Your task to perform on an android device: turn pop-ups on in chrome Image 0: 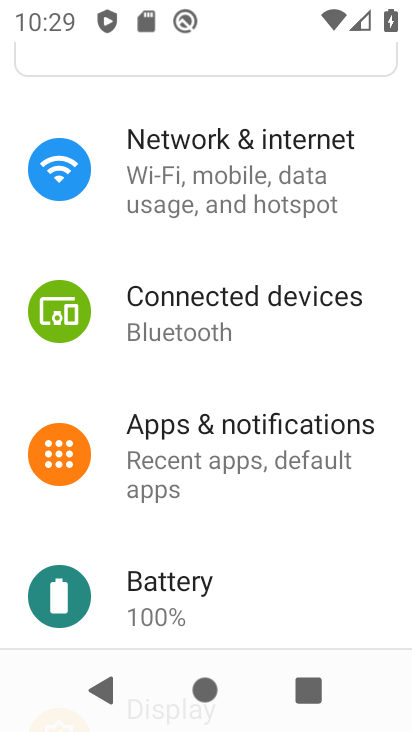
Step 0: press home button
Your task to perform on an android device: turn pop-ups on in chrome Image 1: 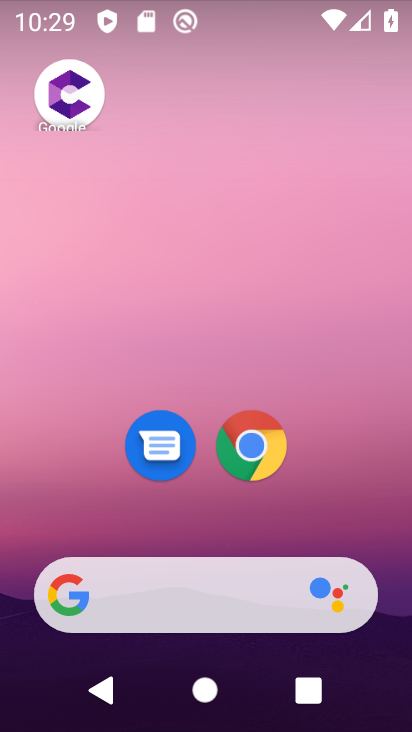
Step 1: click (317, 520)
Your task to perform on an android device: turn pop-ups on in chrome Image 2: 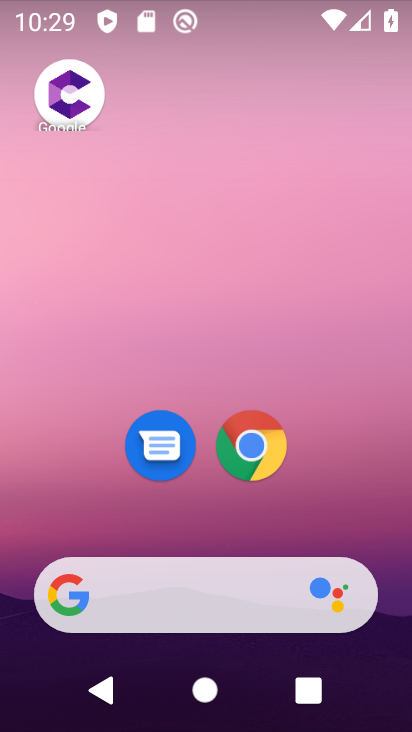
Step 2: click (277, 451)
Your task to perform on an android device: turn pop-ups on in chrome Image 3: 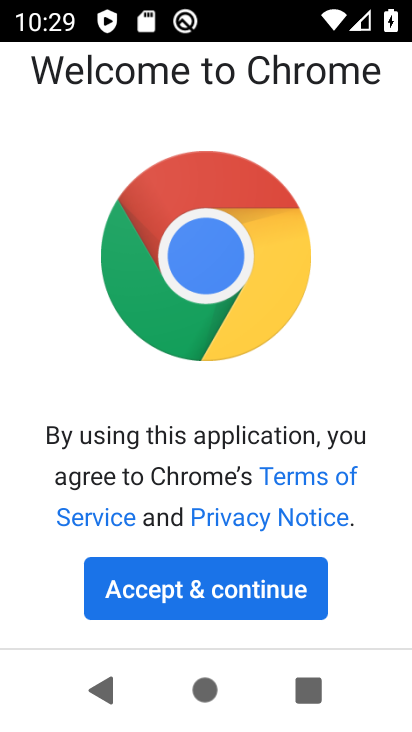
Step 3: click (237, 587)
Your task to perform on an android device: turn pop-ups on in chrome Image 4: 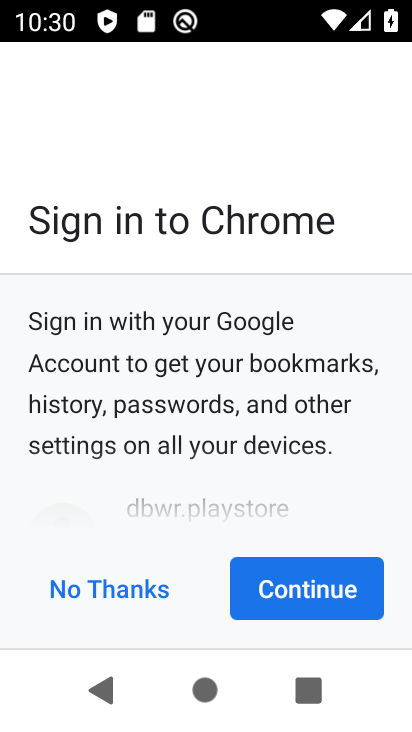
Step 4: click (302, 578)
Your task to perform on an android device: turn pop-ups on in chrome Image 5: 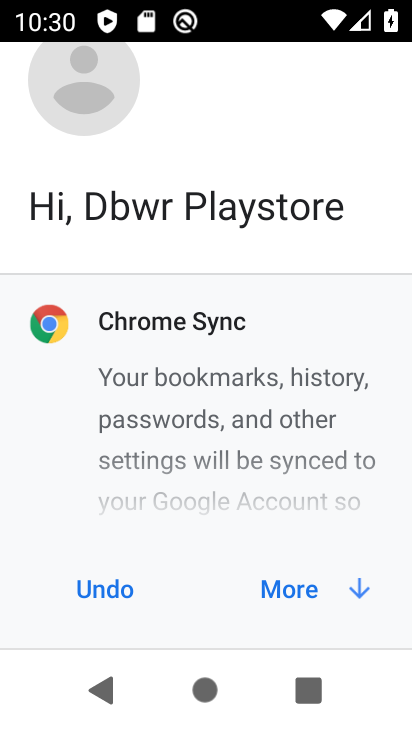
Step 5: click (307, 588)
Your task to perform on an android device: turn pop-ups on in chrome Image 6: 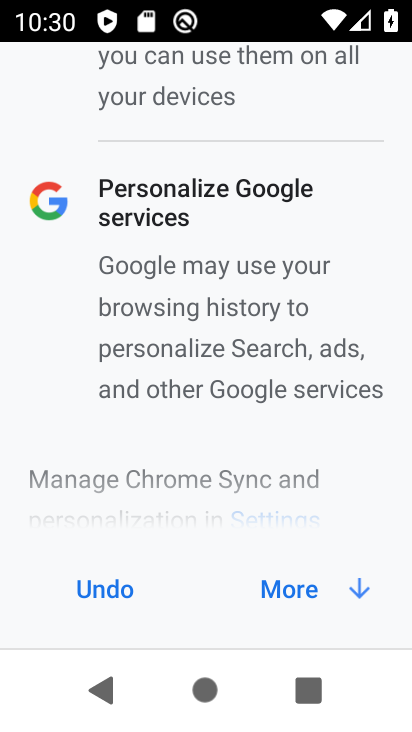
Step 6: click (330, 584)
Your task to perform on an android device: turn pop-ups on in chrome Image 7: 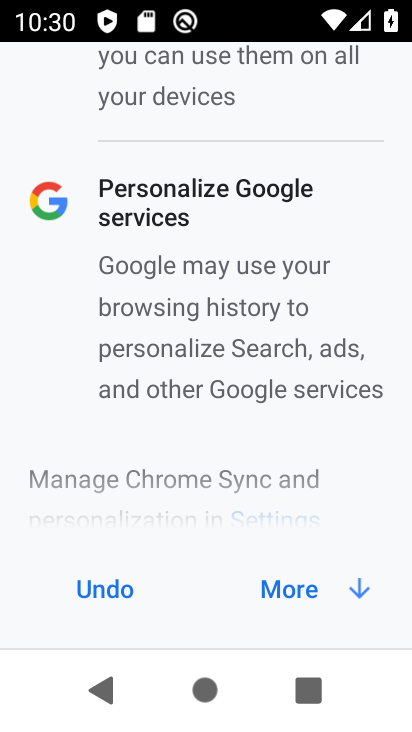
Step 7: click (329, 583)
Your task to perform on an android device: turn pop-ups on in chrome Image 8: 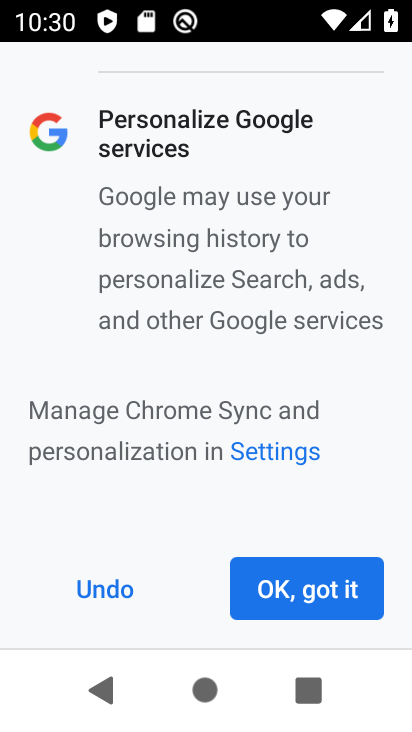
Step 8: click (335, 582)
Your task to perform on an android device: turn pop-ups on in chrome Image 9: 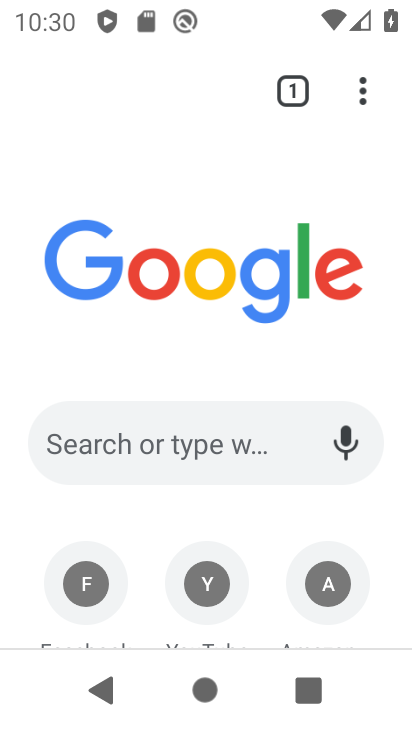
Step 9: click (371, 83)
Your task to perform on an android device: turn pop-ups on in chrome Image 10: 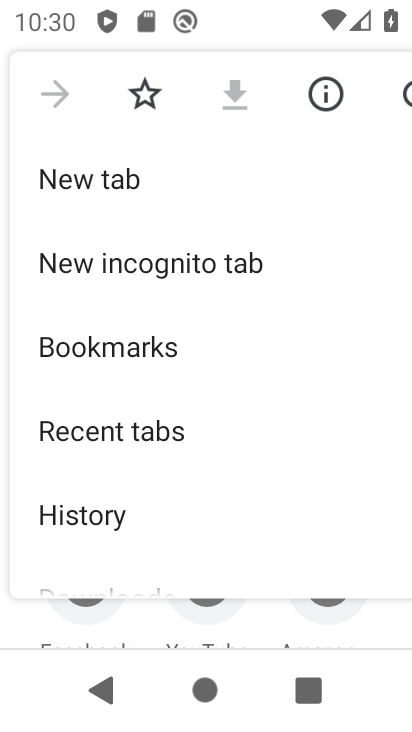
Step 10: drag from (256, 498) to (235, 45)
Your task to perform on an android device: turn pop-ups on in chrome Image 11: 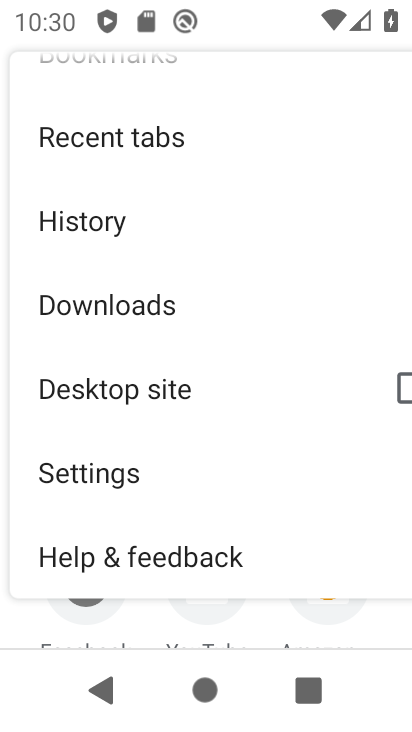
Step 11: click (161, 472)
Your task to perform on an android device: turn pop-ups on in chrome Image 12: 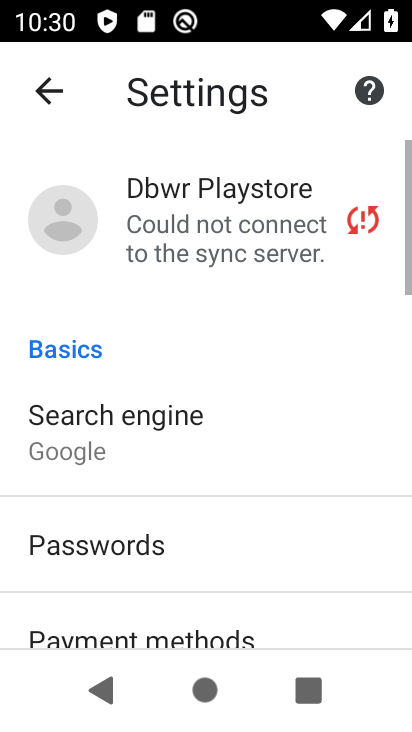
Step 12: drag from (223, 555) to (81, 14)
Your task to perform on an android device: turn pop-ups on in chrome Image 13: 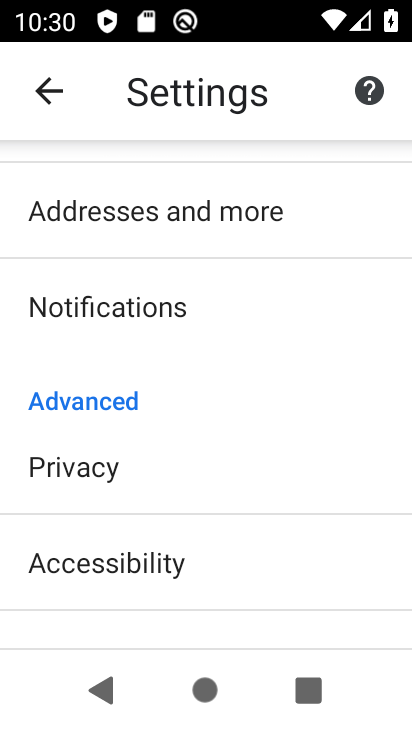
Step 13: drag from (183, 617) to (182, 546)
Your task to perform on an android device: turn pop-ups on in chrome Image 14: 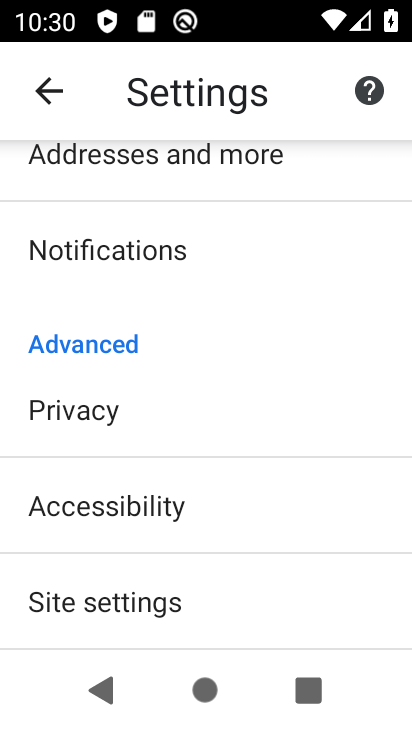
Step 14: click (179, 592)
Your task to perform on an android device: turn pop-ups on in chrome Image 15: 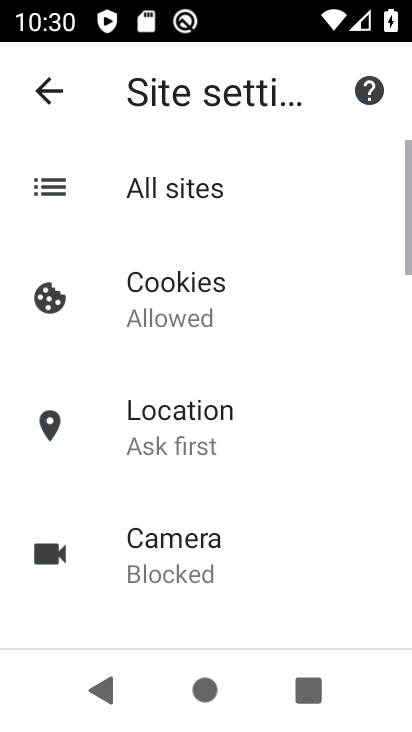
Step 15: drag from (275, 498) to (223, 113)
Your task to perform on an android device: turn pop-ups on in chrome Image 16: 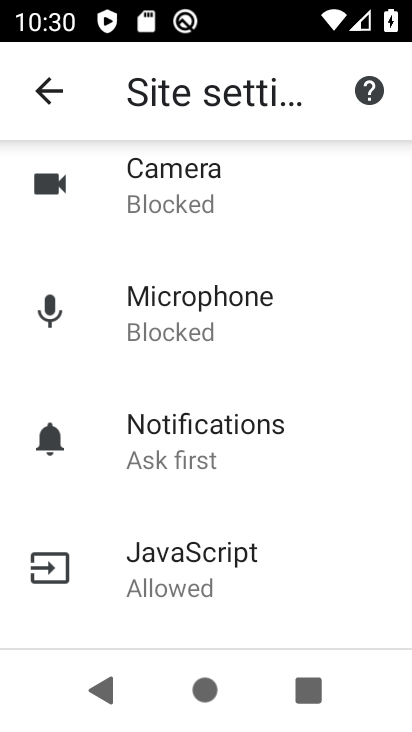
Step 16: drag from (253, 519) to (184, 148)
Your task to perform on an android device: turn pop-ups on in chrome Image 17: 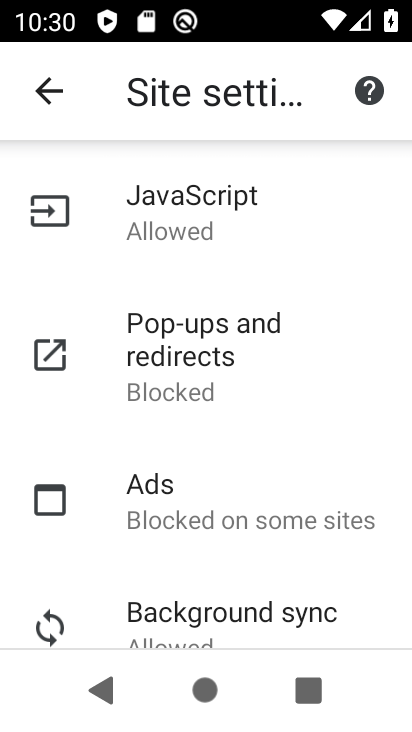
Step 17: drag from (240, 569) to (254, 477)
Your task to perform on an android device: turn pop-ups on in chrome Image 18: 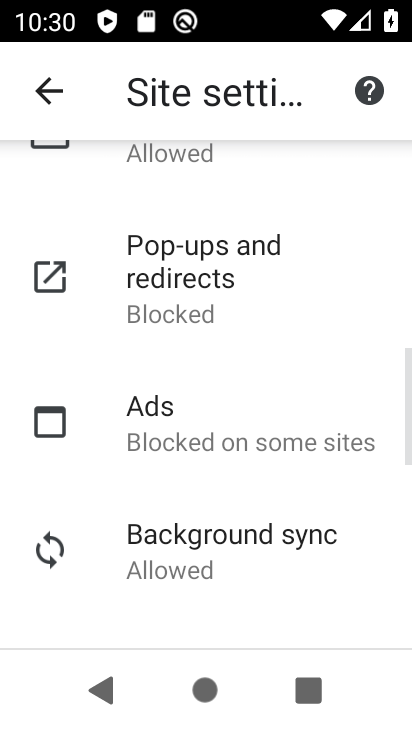
Step 18: click (190, 290)
Your task to perform on an android device: turn pop-ups on in chrome Image 19: 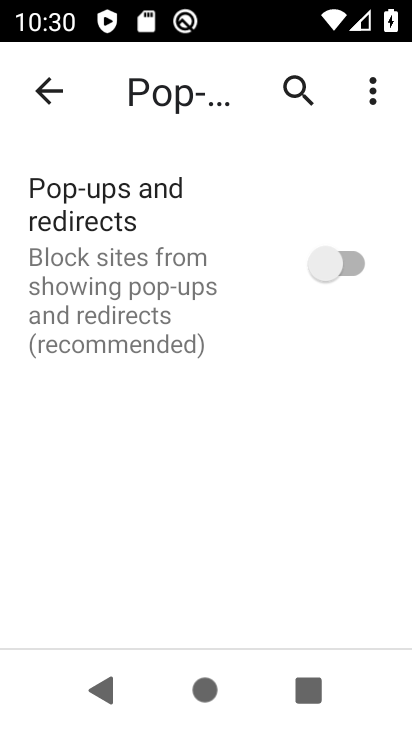
Step 19: click (348, 263)
Your task to perform on an android device: turn pop-ups on in chrome Image 20: 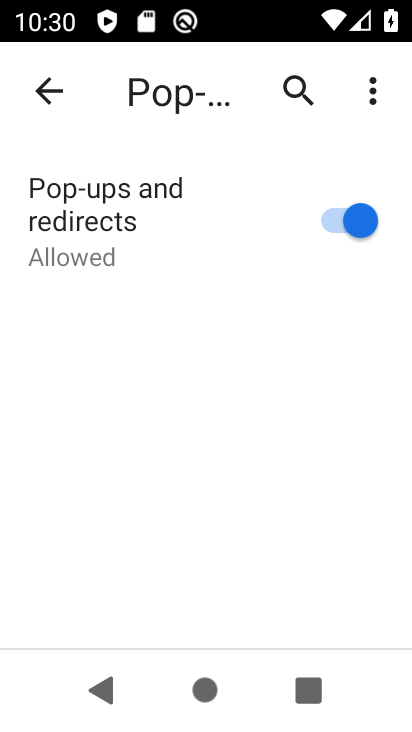
Step 20: task complete